Your task to perform on an android device: empty trash in the gmail app Image 0: 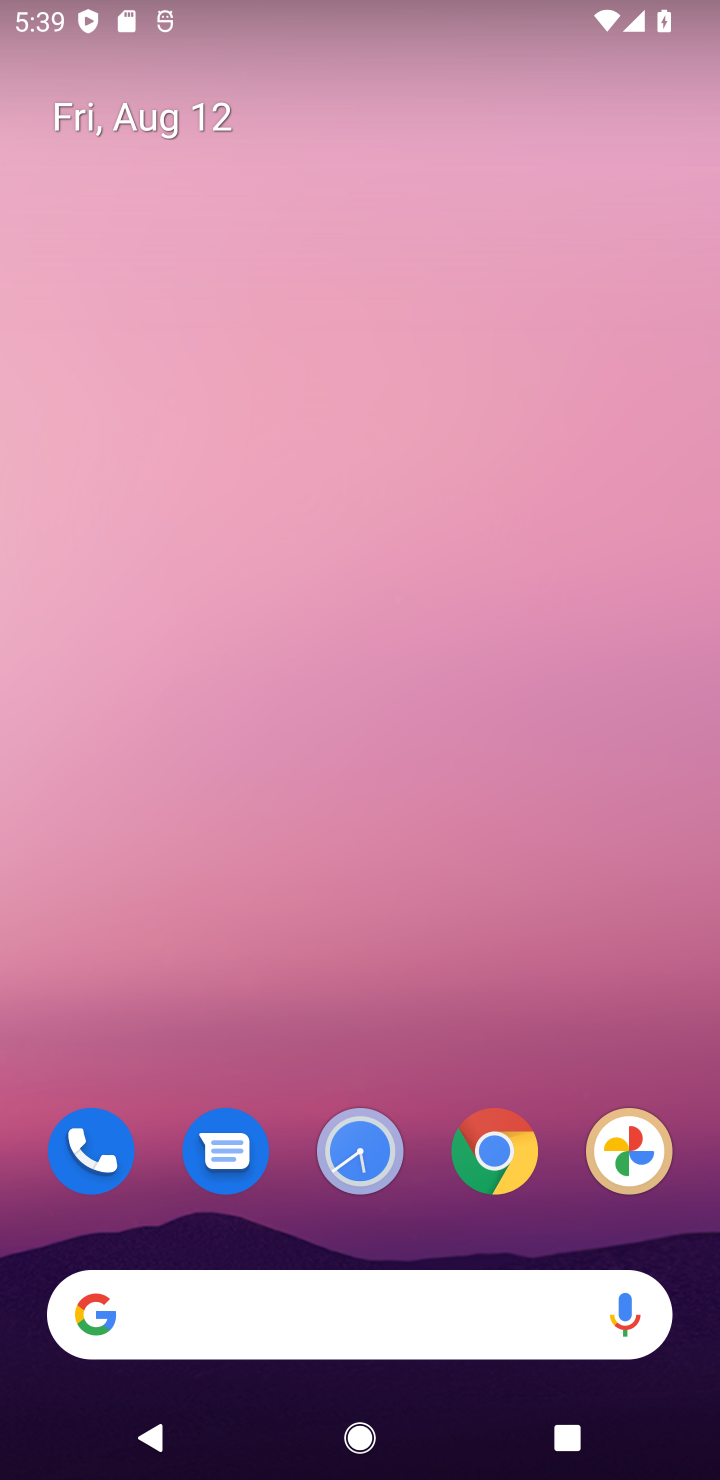
Step 0: drag from (409, 948) to (351, 142)
Your task to perform on an android device: empty trash in the gmail app Image 1: 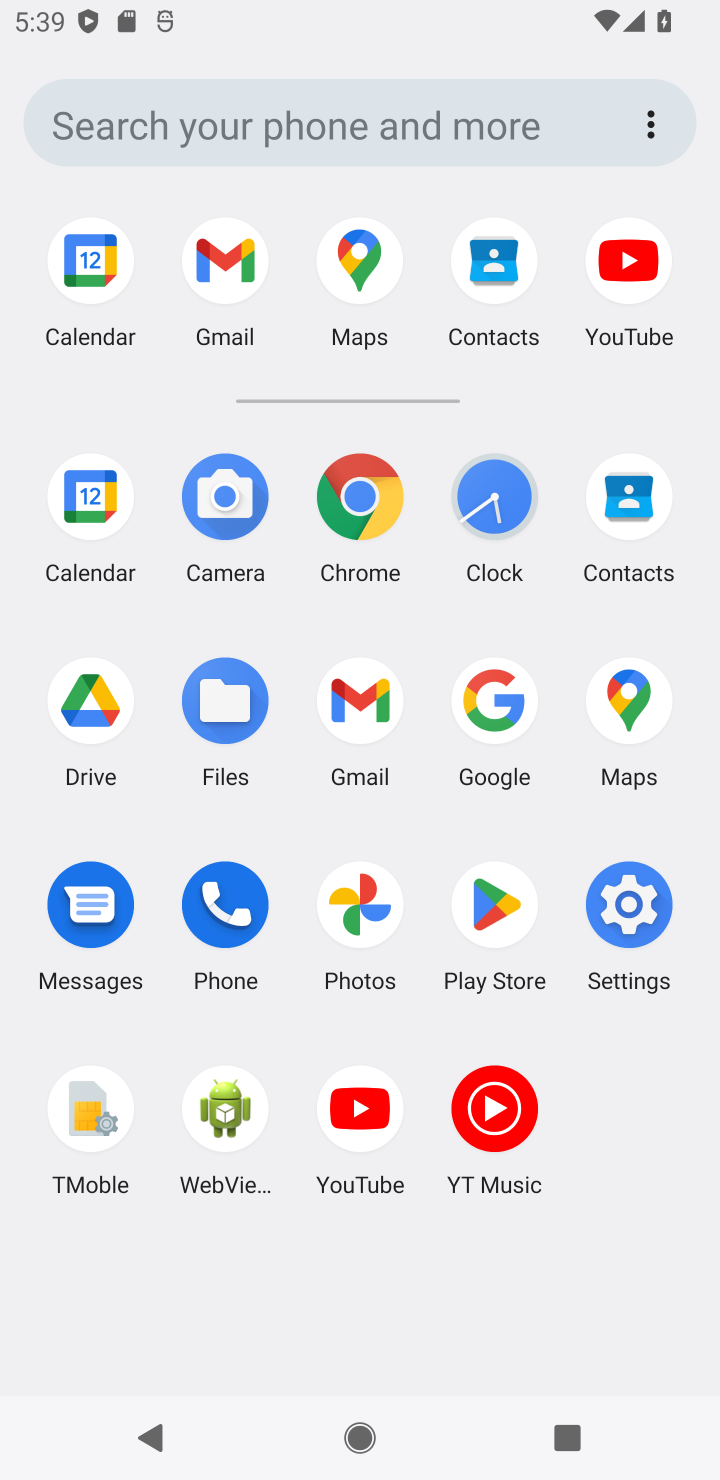
Step 1: click (372, 699)
Your task to perform on an android device: empty trash in the gmail app Image 2: 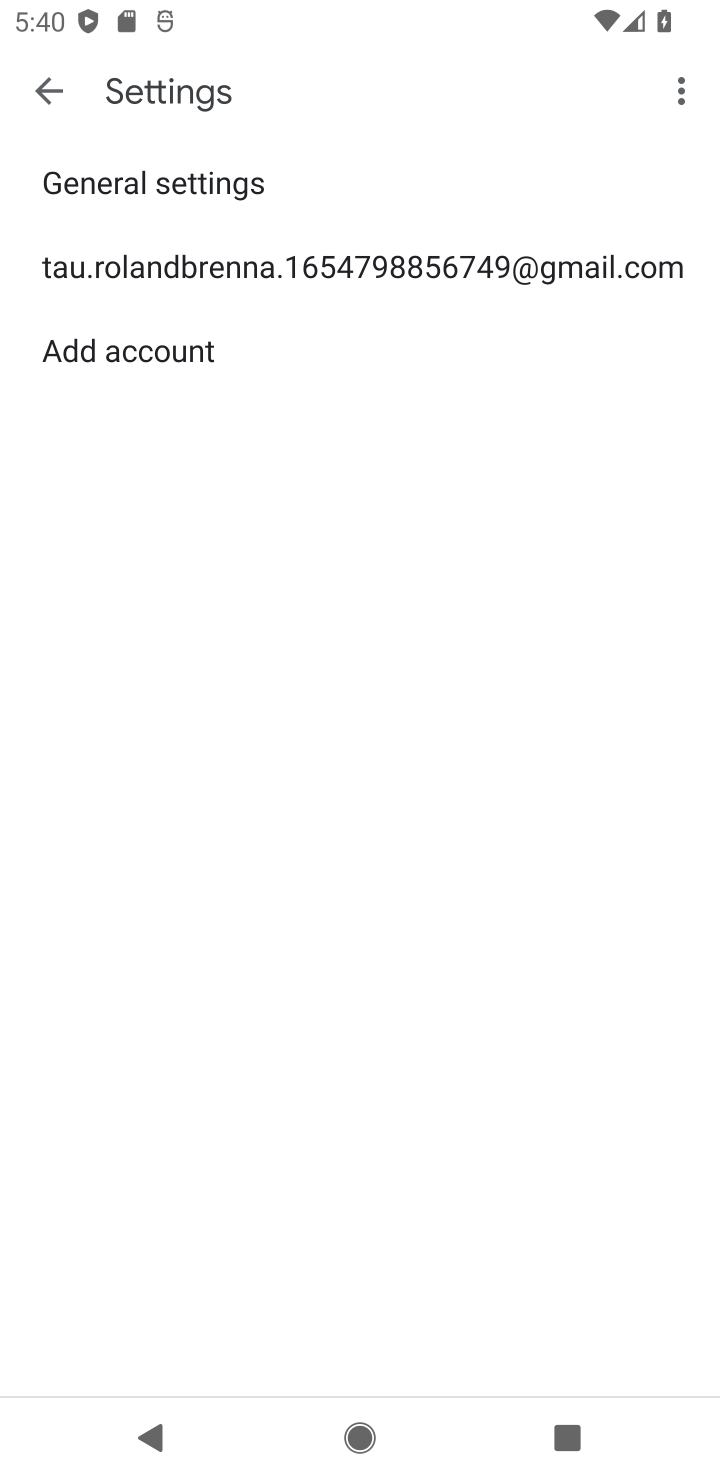
Step 2: click (33, 76)
Your task to perform on an android device: empty trash in the gmail app Image 3: 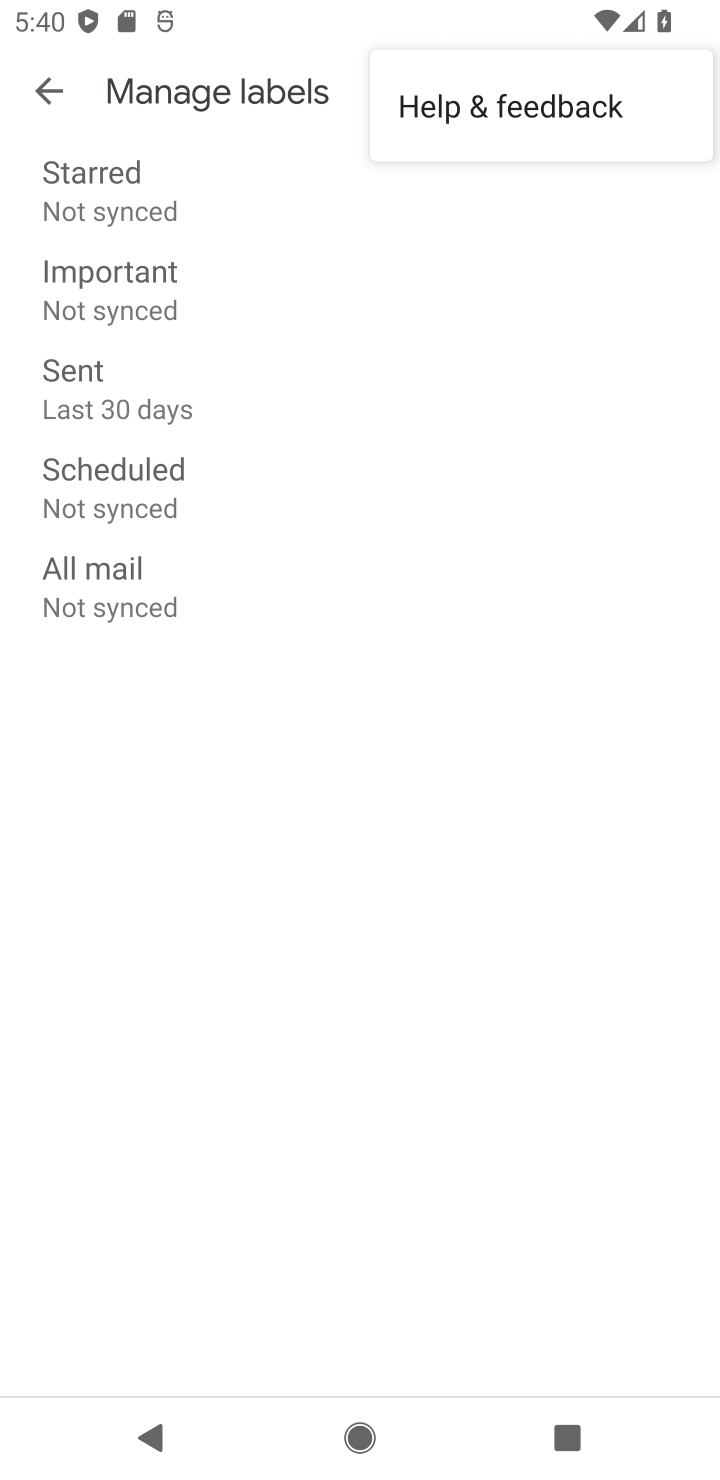
Step 3: click (52, 72)
Your task to perform on an android device: empty trash in the gmail app Image 4: 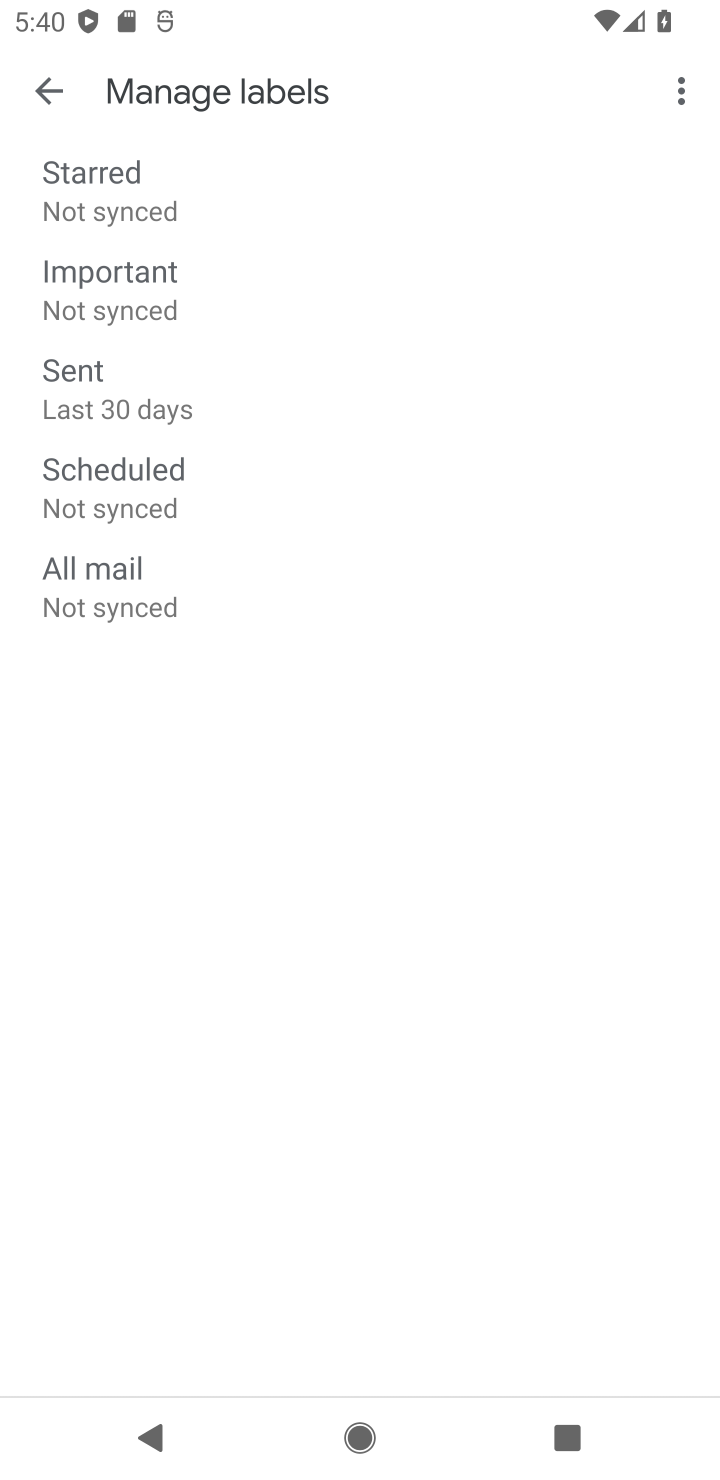
Step 4: click (47, 81)
Your task to perform on an android device: empty trash in the gmail app Image 5: 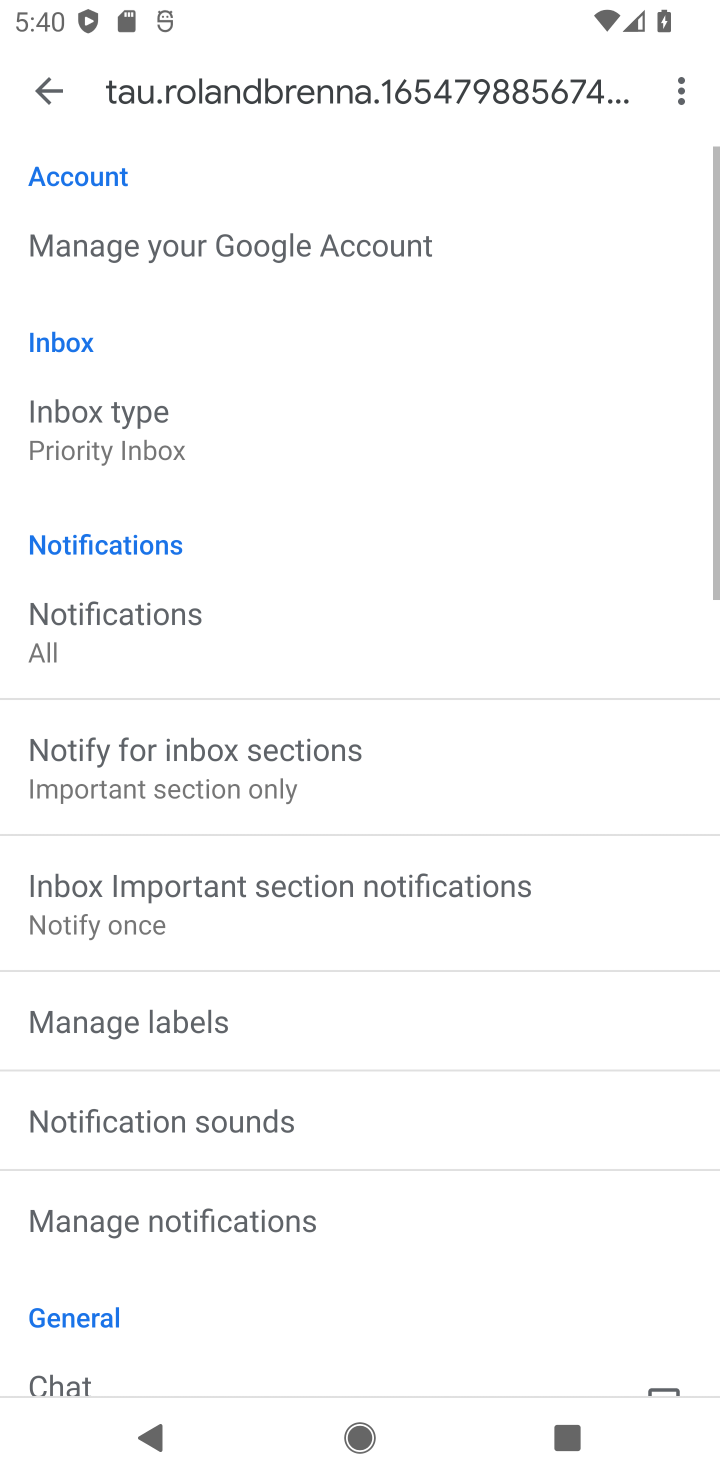
Step 5: click (56, 89)
Your task to perform on an android device: empty trash in the gmail app Image 6: 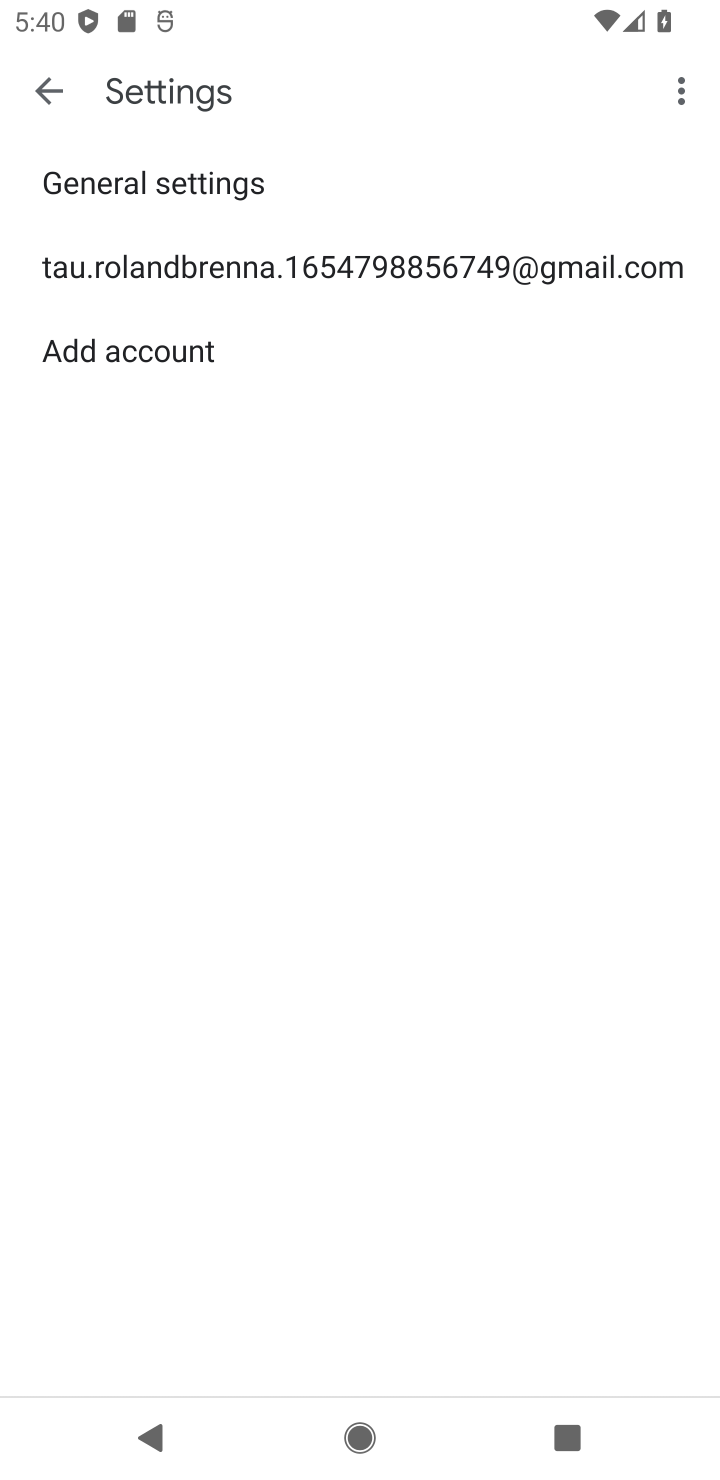
Step 6: press back button
Your task to perform on an android device: empty trash in the gmail app Image 7: 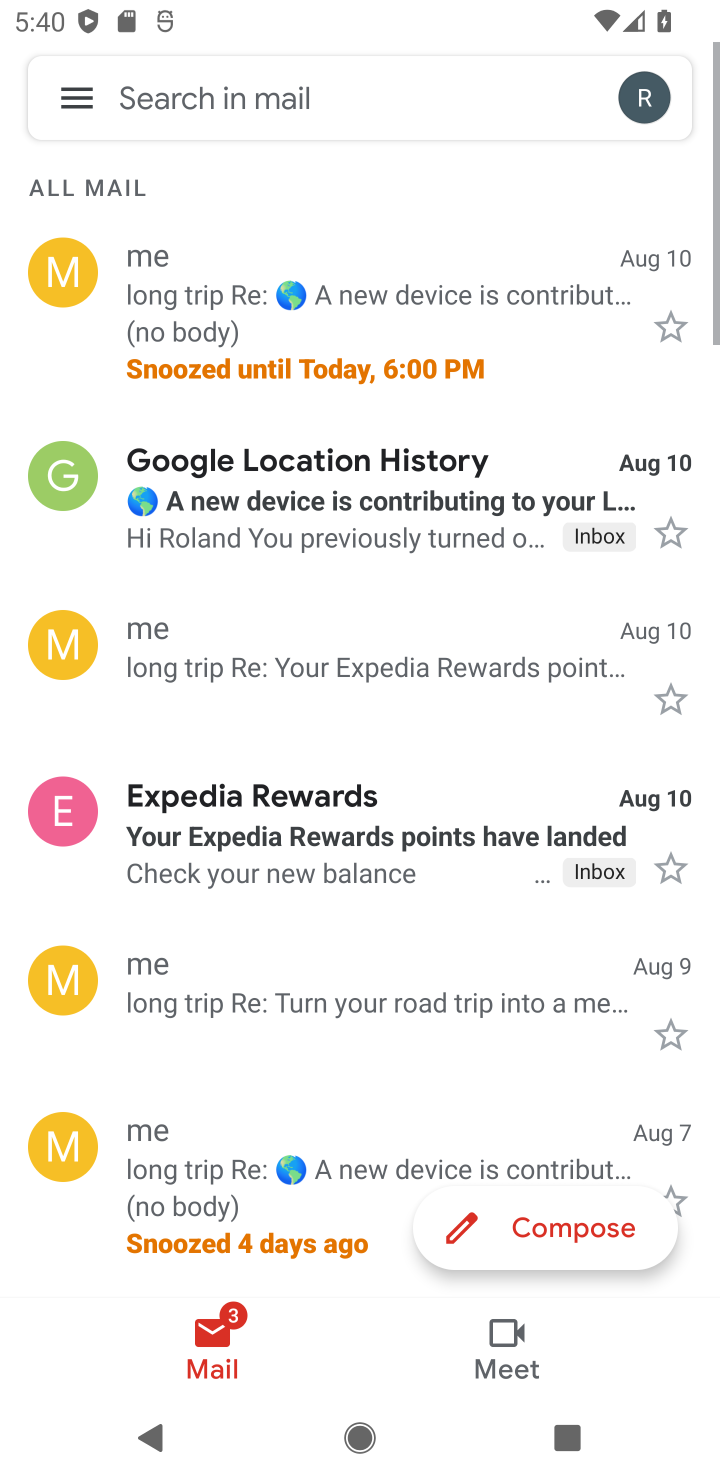
Step 7: press back button
Your task to perform on an android device: empty trash in the gmail app Image 8: 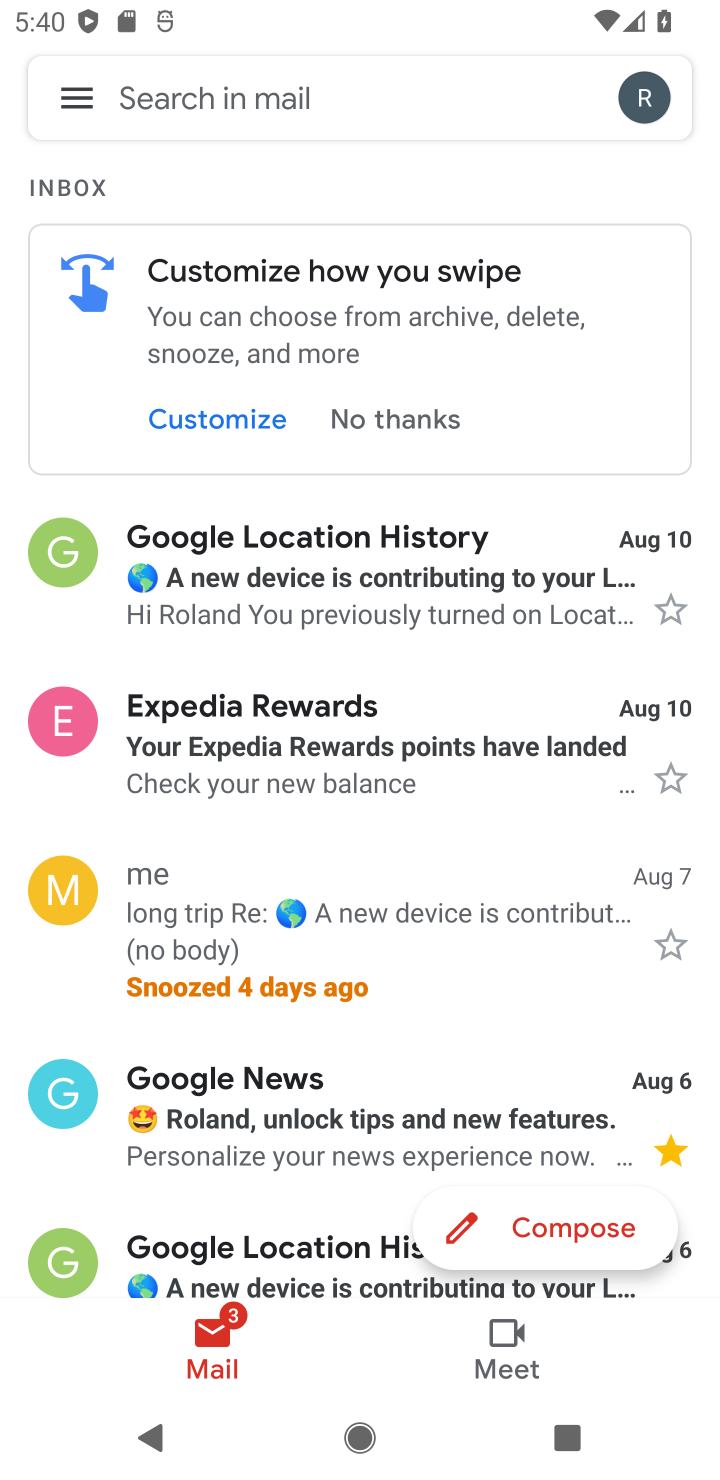
Step 8: click (85, 72)
Your task to perform on an android device: empty trash in the gmail app Image 9: 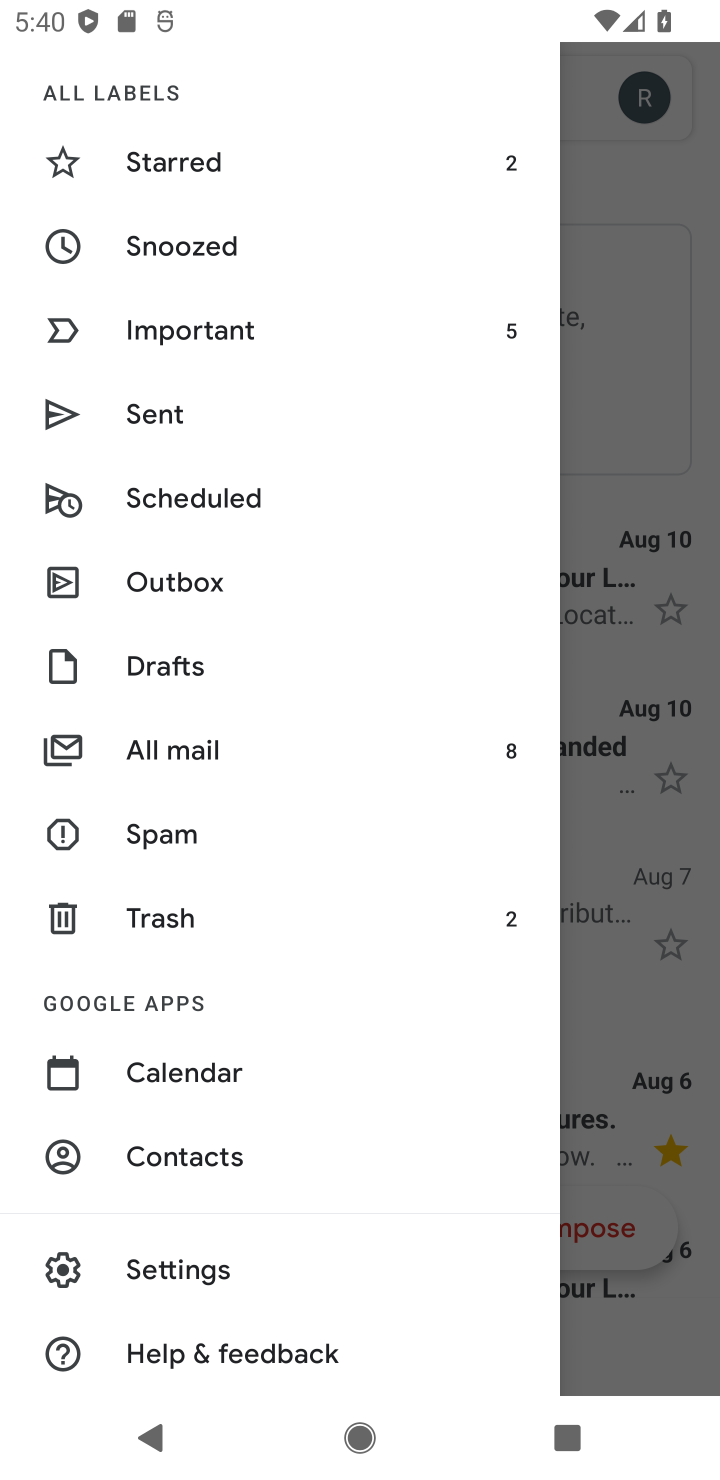
Step 9: click (180, 946)
Your task to perform on an android device: empty trash in the gmail app Image 10: 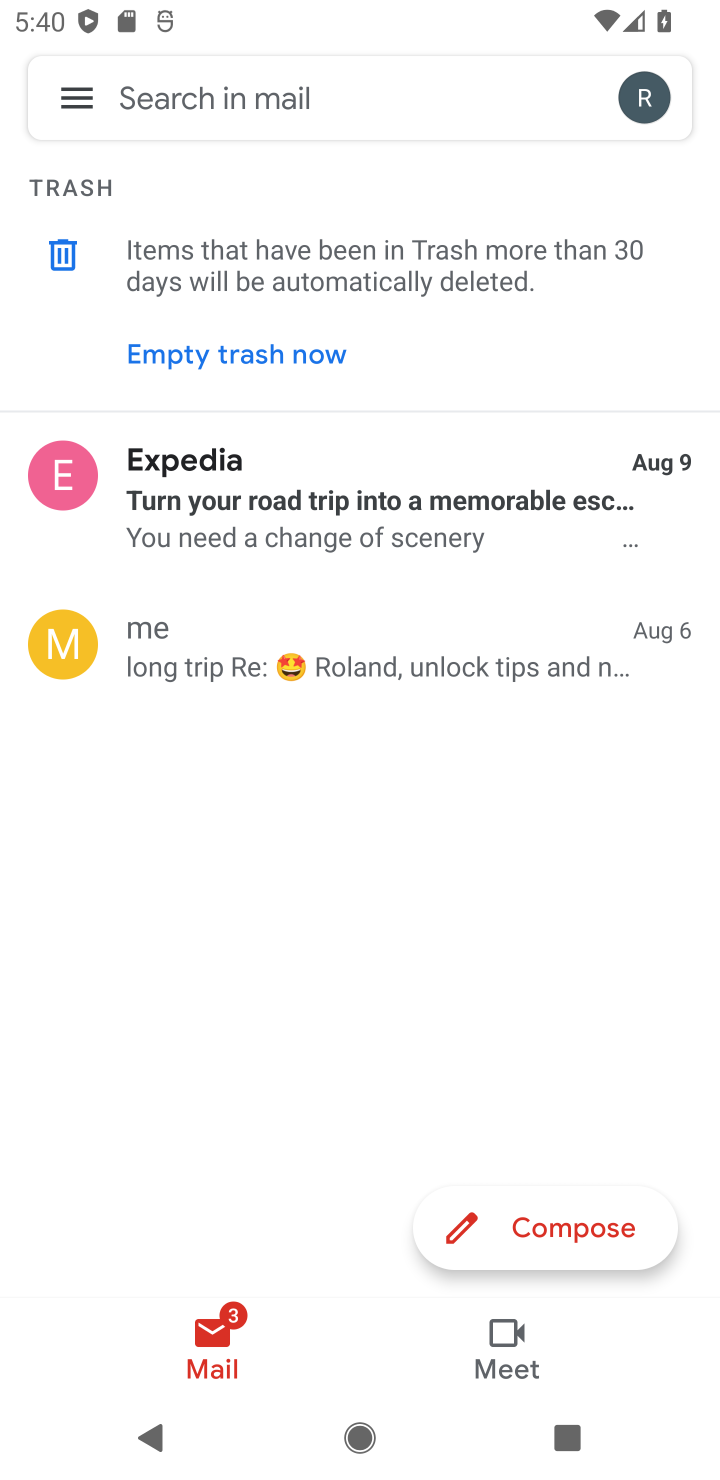
Step 10: click (187, 356)
Your task to perform on an android device: empty trash in the gmail app Image 11: 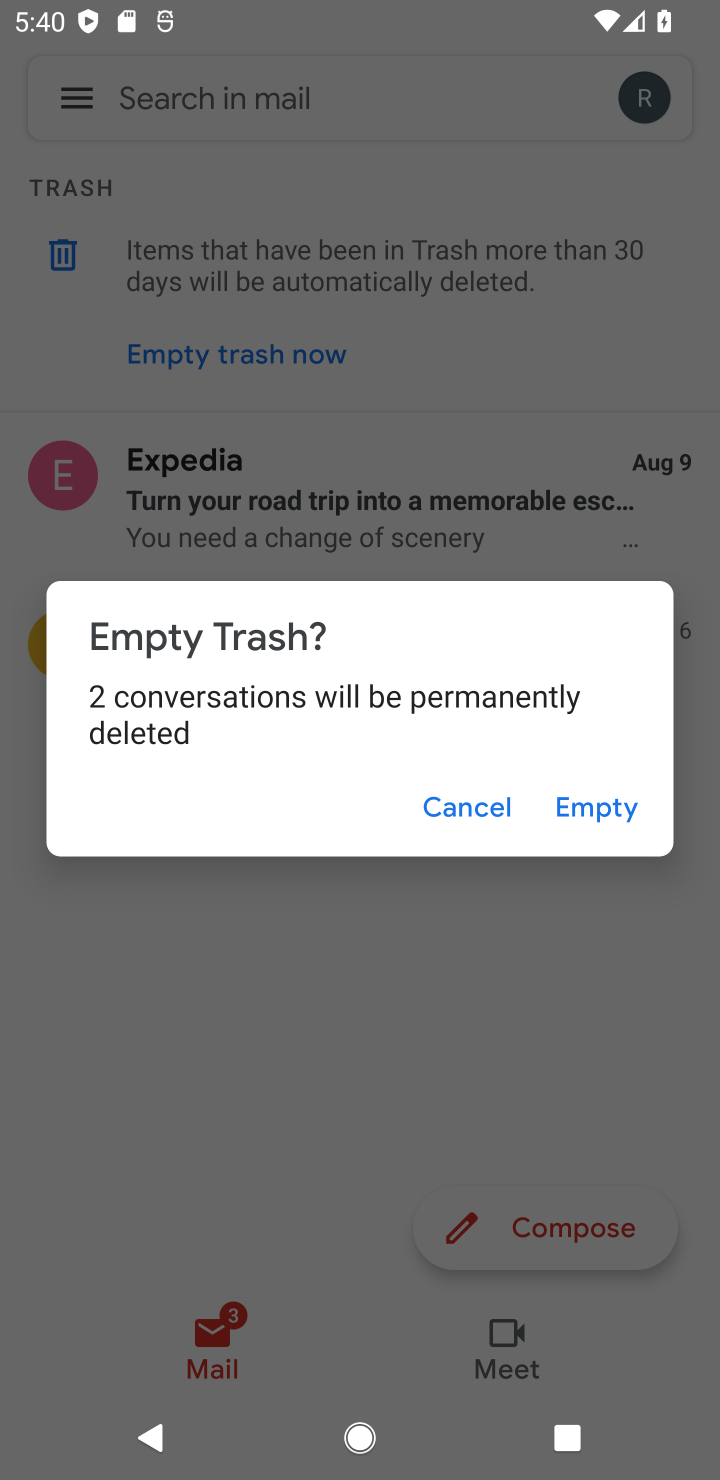
Step 11: click (575, 804)
Your task to perform on an android device: empty trash in the gmail app Image 12: 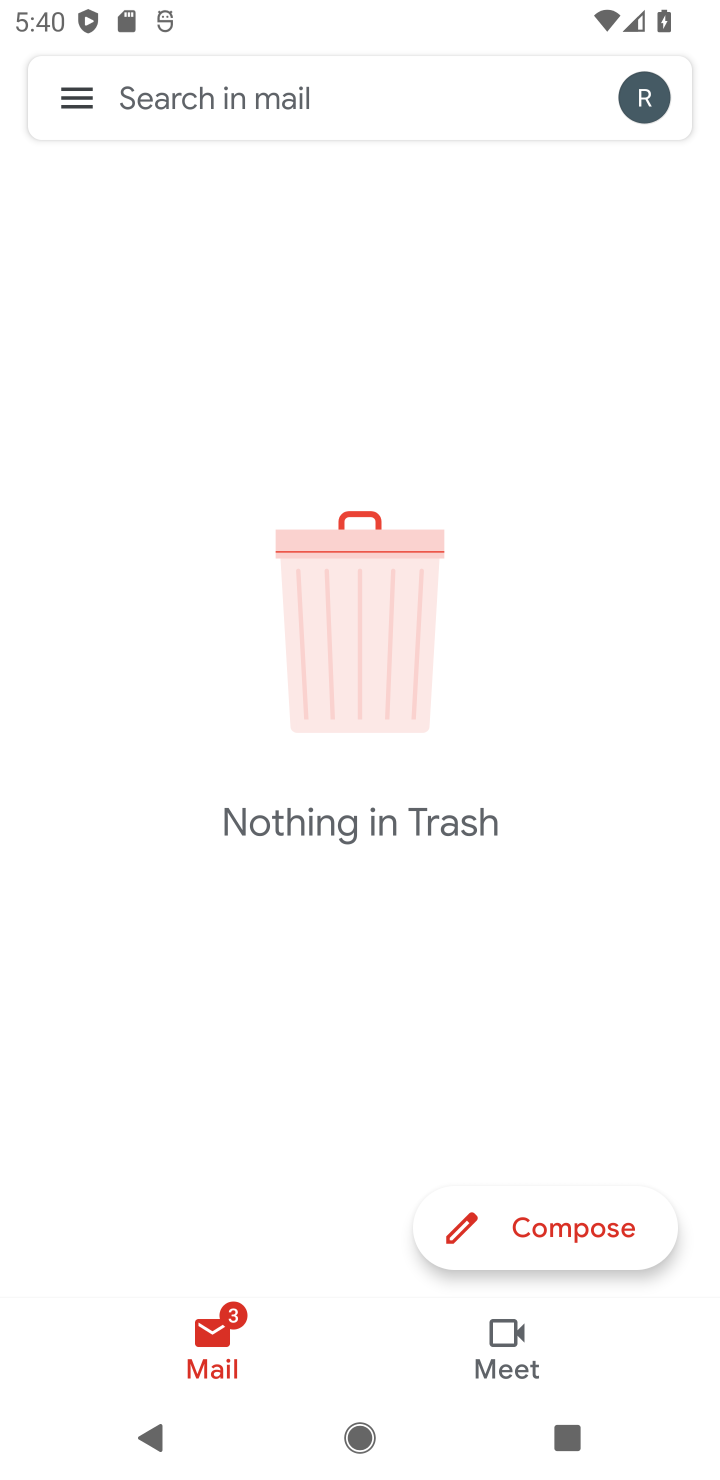
Step 12: task complete